Your task to perform on an android device: Is it going to rain today? Image 0: 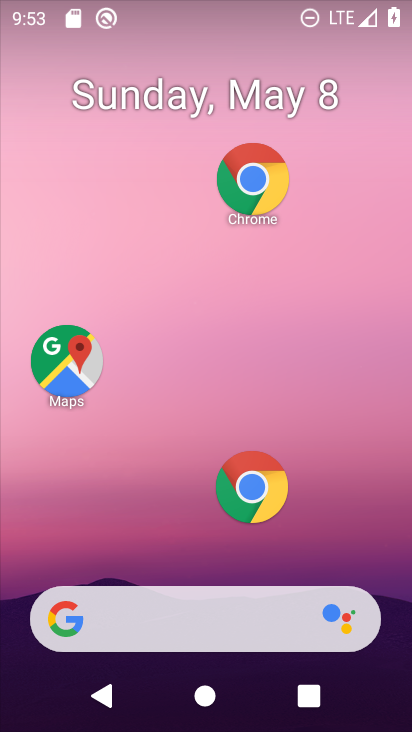
Step 0: click (210, 626)
Your task to perform on an android device: Is it going to rain today? Image 1: 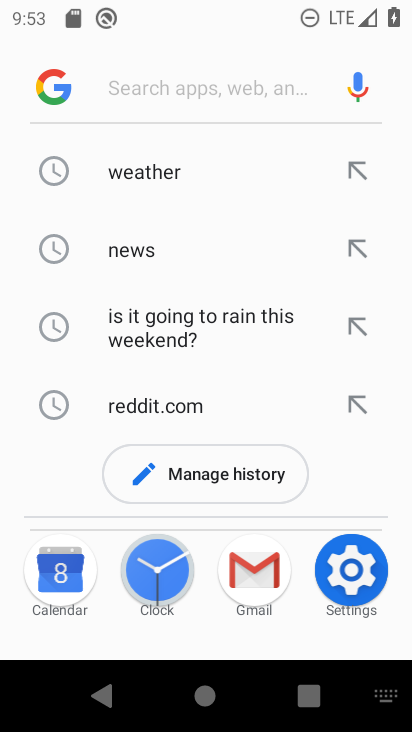
Step 1: click (195, 163)
Your task to perform on an android device: Is it going to rain today? Image 2: 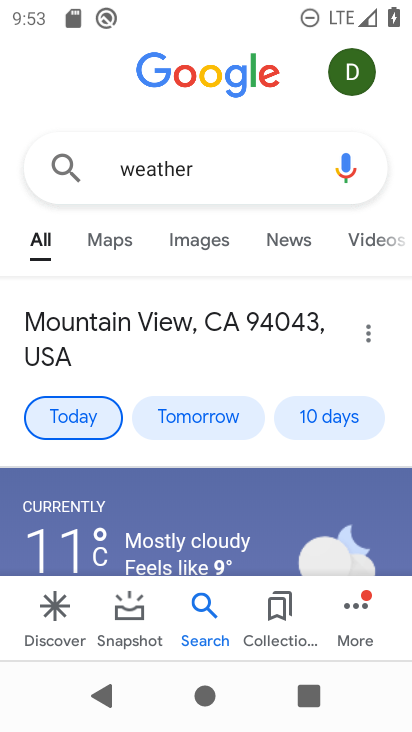
Step 2: click (69, 419)
Your task to perform on an android device: Is it going to rain today? Image 3: 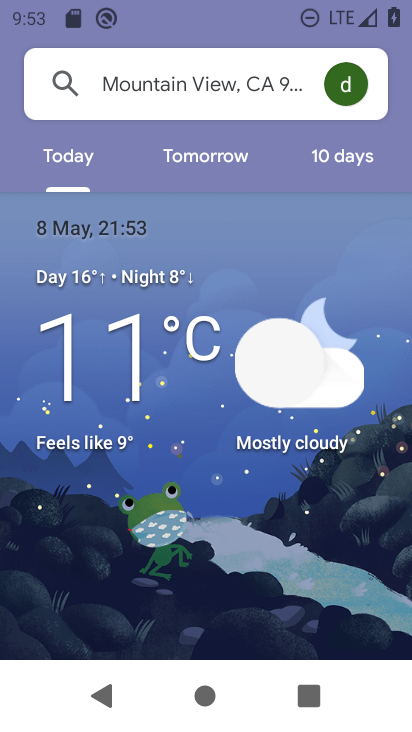
Step 3: task complete